Your task to perform on an android device: turn on data saver in the chrome app Image 0: 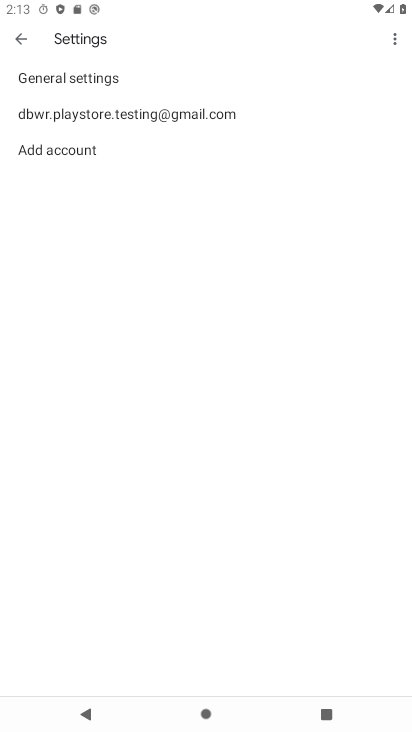
Step 0: press home button
Your task to perform on an android device: turn on data saver in the chrome app Image 1: 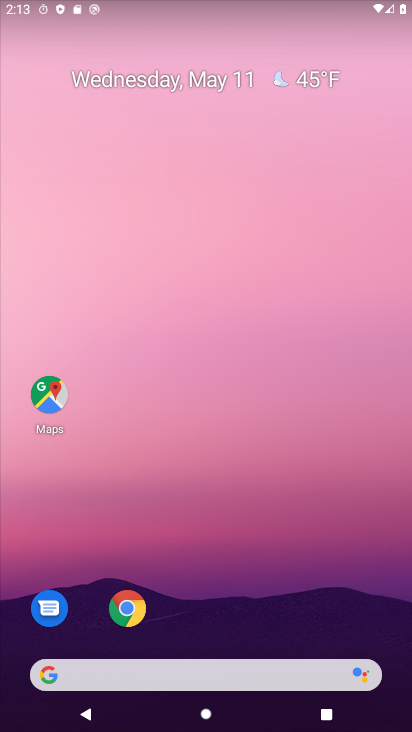
Step 1: click (129, 603)
Your task to perform on an android device: turn on data saver in the chrome app Image 2: 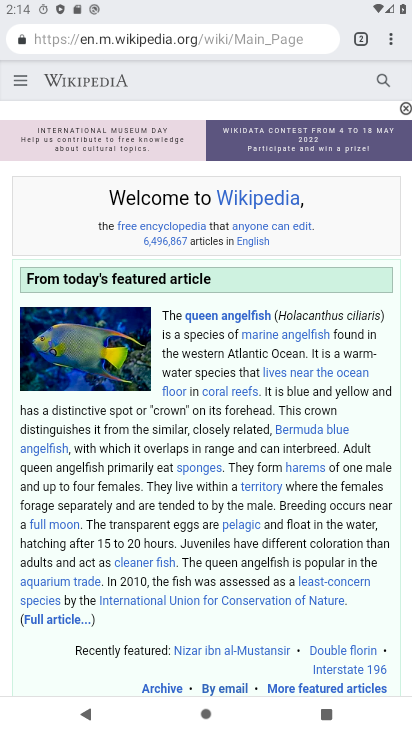
Step 2: click (384, 37)
Your task to perform on an android device: turn on data saver in the chrome app Image 3: 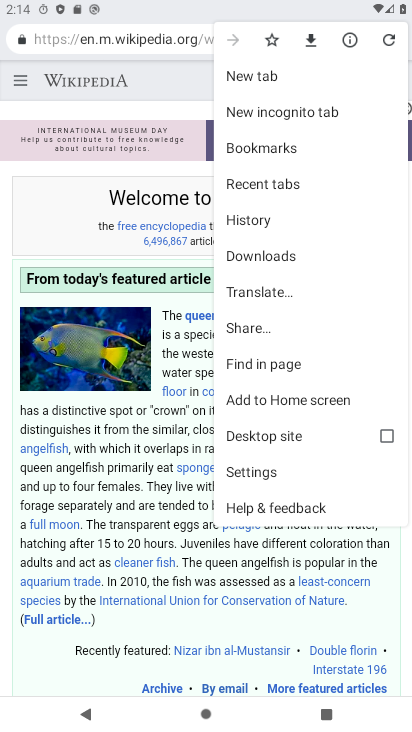
Step 3: click (265, 471)
Your task to perform on an android device: turn on data saver in the chrome app Image 4: 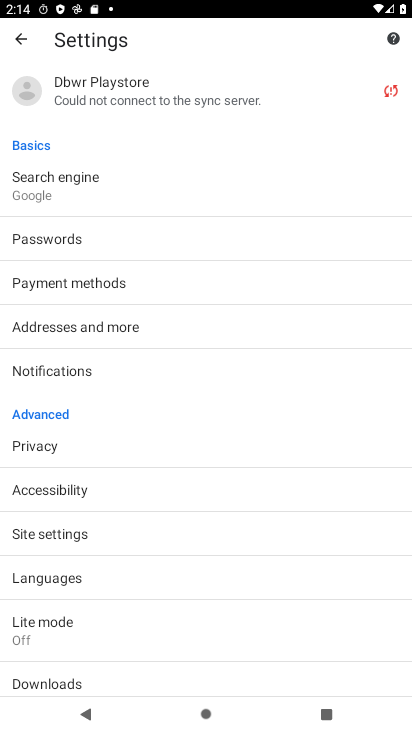
Step 4: drag from (173, 572) to (182, 413)
Your task to perform on an android device: turn on data saver in the chrome app Image 5: 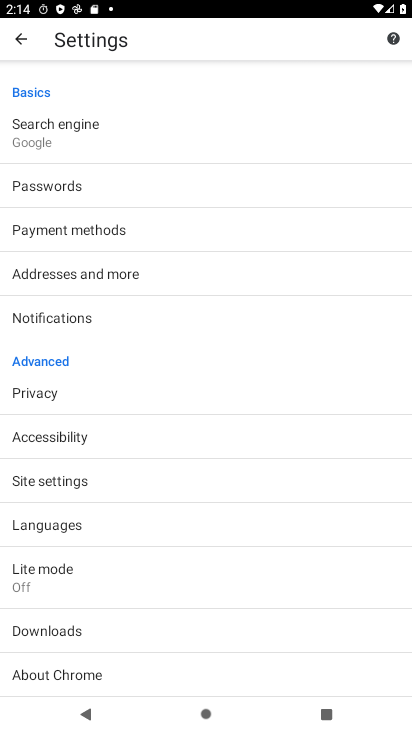
Step 5: click (75, 568)
Your task to perform on an android device: turn on data saver in the chrome app Image 6: 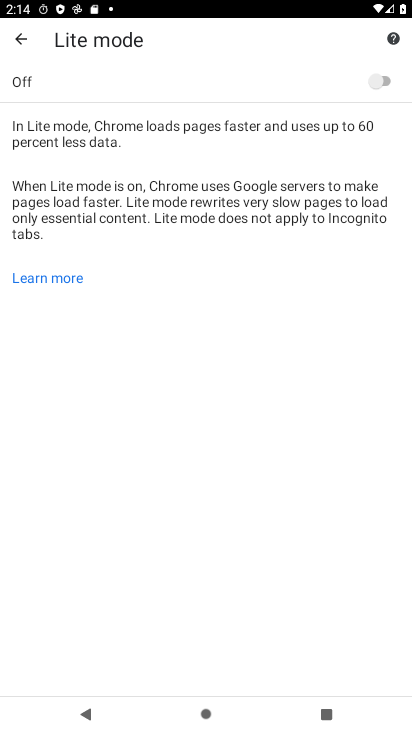
Step 6: click (376, 80)
Your task to perform on an android device: turn on data saver in the chrome app Image 7: 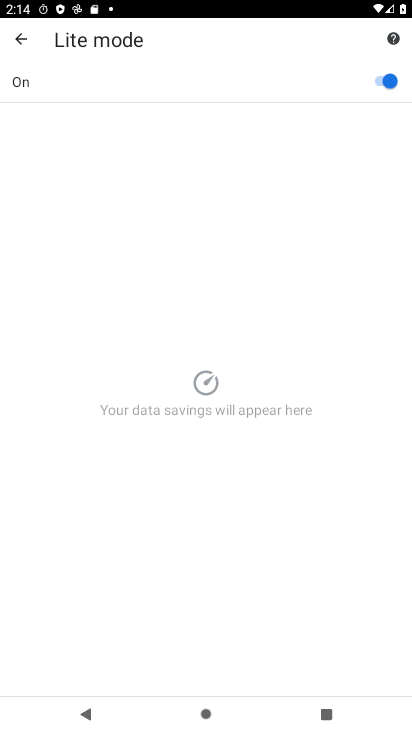
Step 7: task complete